Your task to perform on an android device: turn notification dots off Image 0: 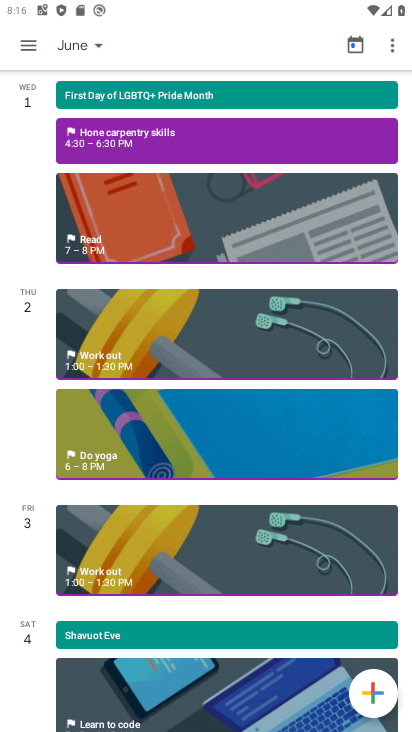
Step 0: press home button
Your task to perform on an android device: turn notification dots off Image 1: 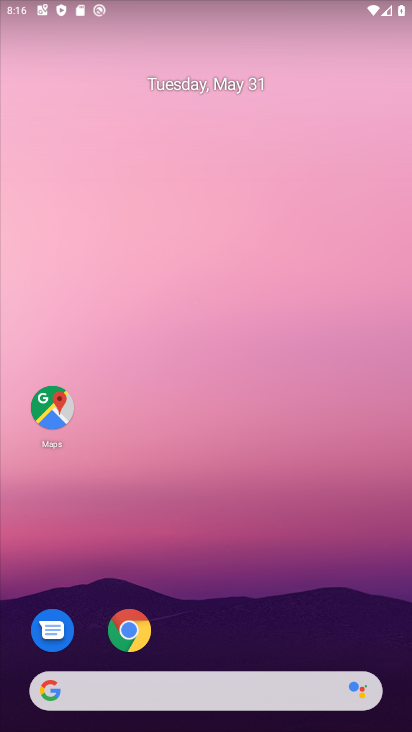
Step 1: drag from (200, 632) to (247, 265)
Your task to perform on an android device: turn notification dots off Image 2: 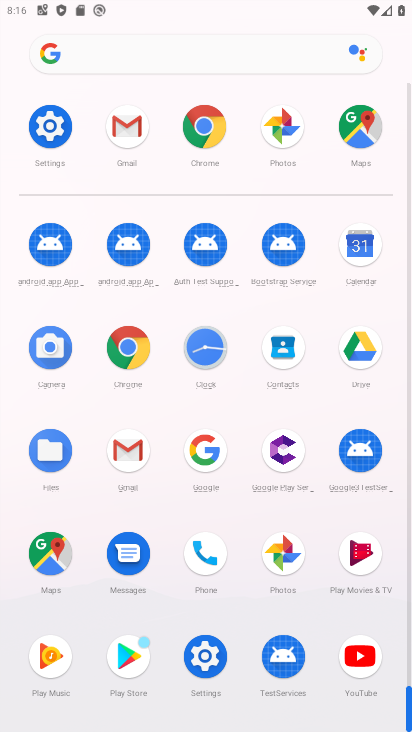
Step 2: click (53, 133)
Your task to perform on an android device: turn notification dots off Image 3: 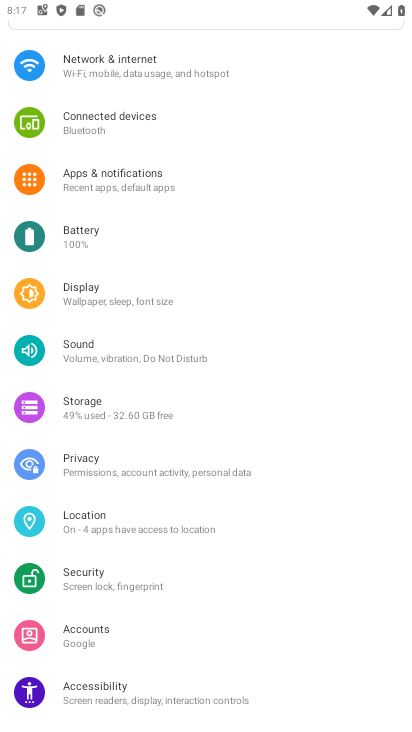
Step 3: drag from (237, 90) to (266, 464)
Your task to perform on an android device: turn notification dots off Image 4: 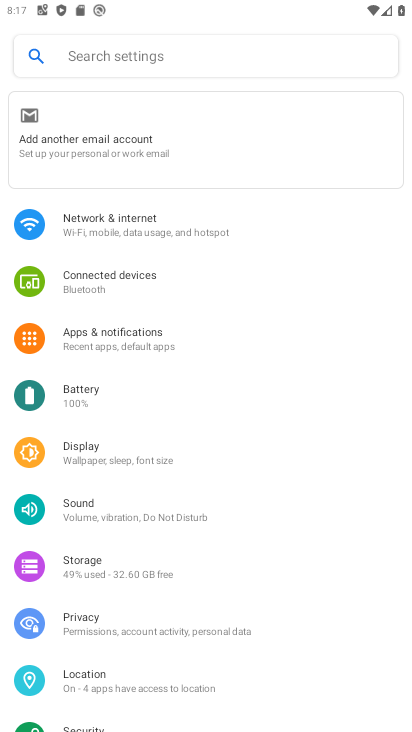
Step 4: click (186, 44)
Your task to perform on an android device: turn notification dots off Image 5: 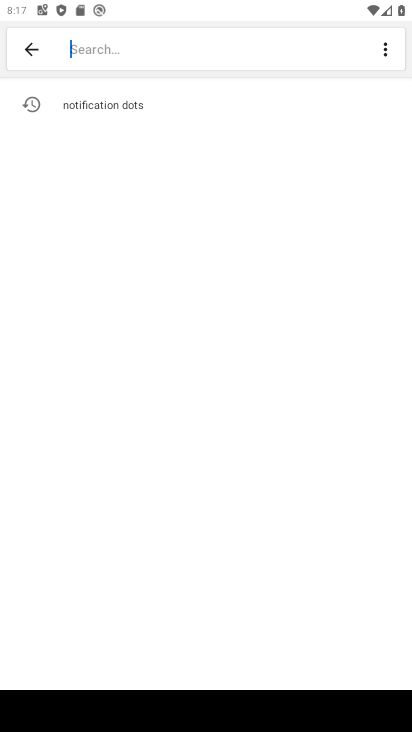
Step 5: click (169, 113)
Your task to perform on an android device: turn notification dots off Image 6: 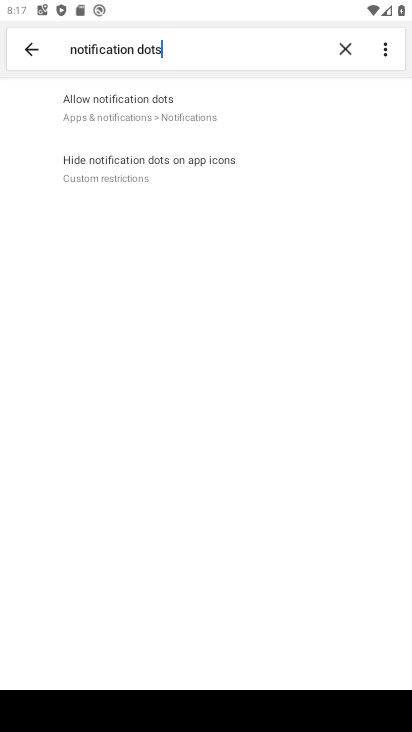
Step 6: click (239, 116)
Your task to perform on an android device: turn notification dots off Image 7: 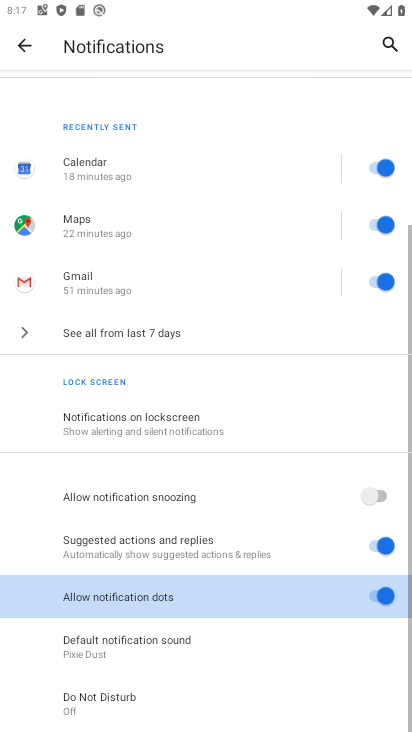
Step 7: click (367, 574)
Your task to perform on an android device: turn notification dots off Image 8: 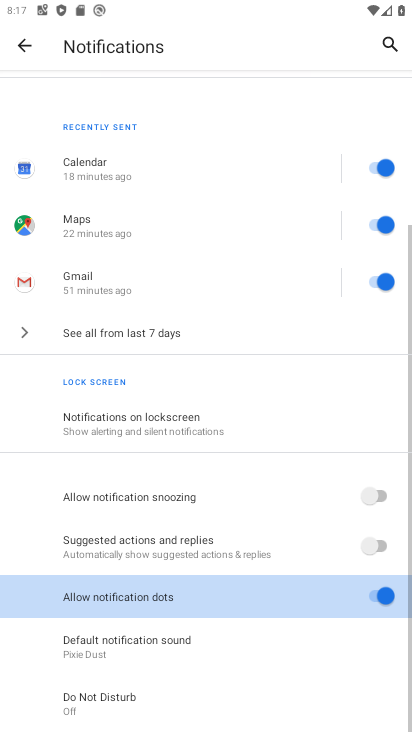
Step 8: task complete